Your task to perform on an android device: Open settings Image 0: 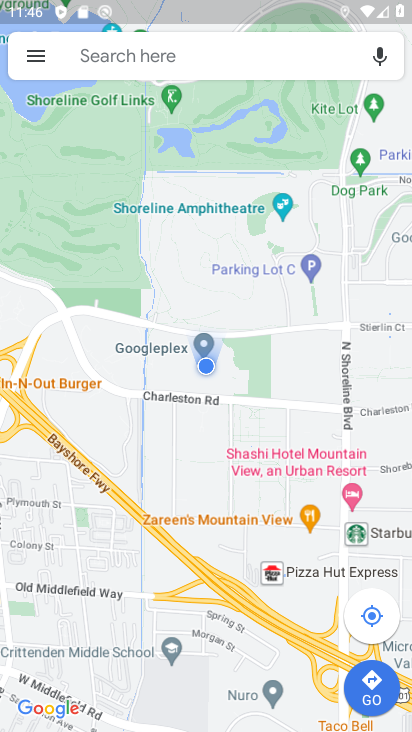
Step 0: press home button
Your task to perform on an android device: Open settings Image 1: 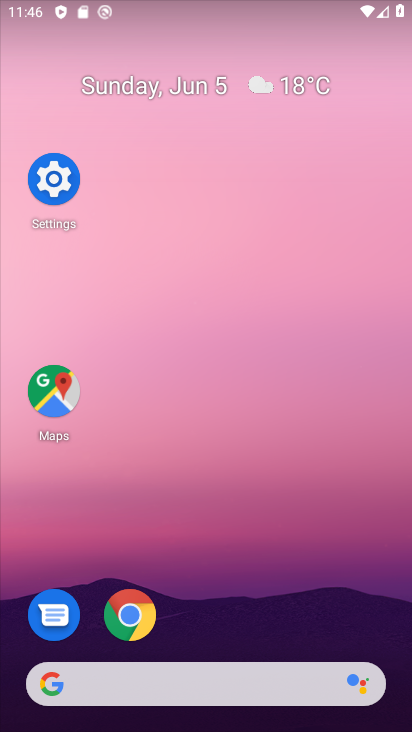
Step 1: click (47, 180)
Your task to perform on an android device: Open settings Image 2: 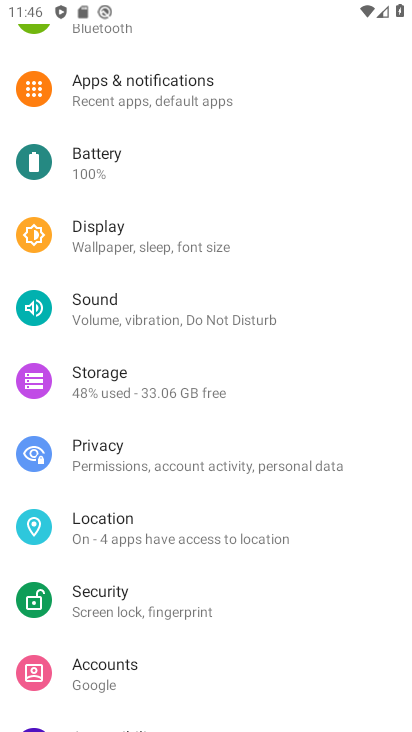
Step 2: task complete